Your task to perform on an android device: manage bookmarks in the chrome app Image 0: 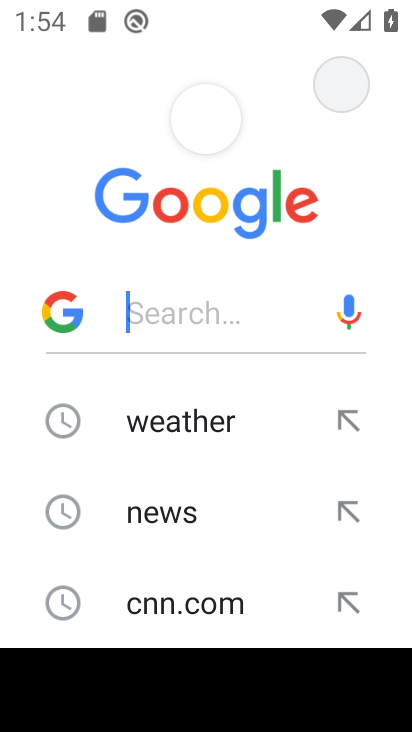
Step 0: press home button
Your task to perform on an android device: manage bookmarks in the chrome app Image 1: 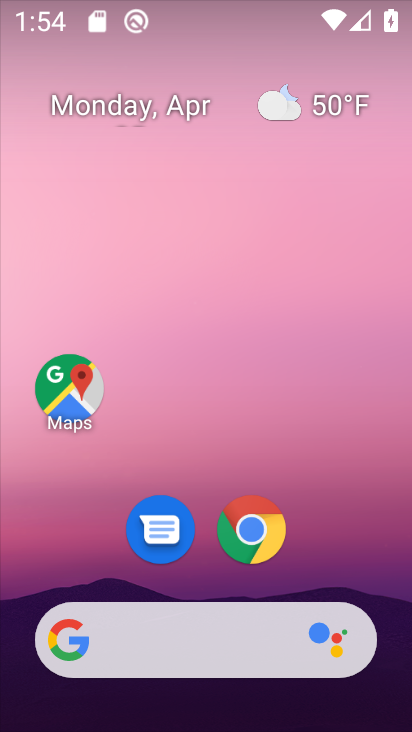
Step 1: click (247, 526)
Your task to perform on an android device: manage bookmarks in the chrome app Image 2: 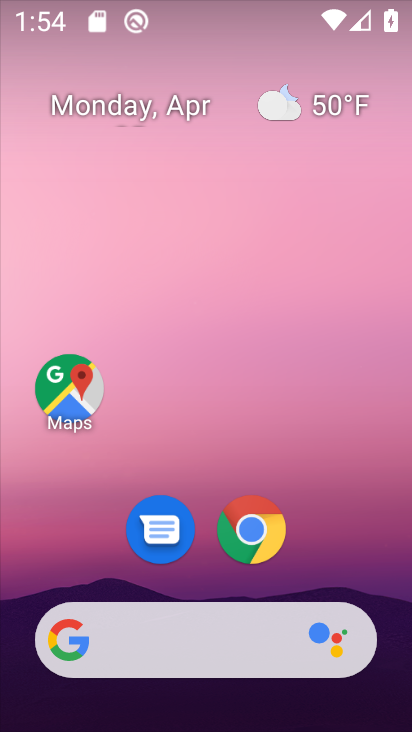
Step 2: click (250, 522)
Your task to perform on an android device: manage bookmarks in the chrome app Image 3: 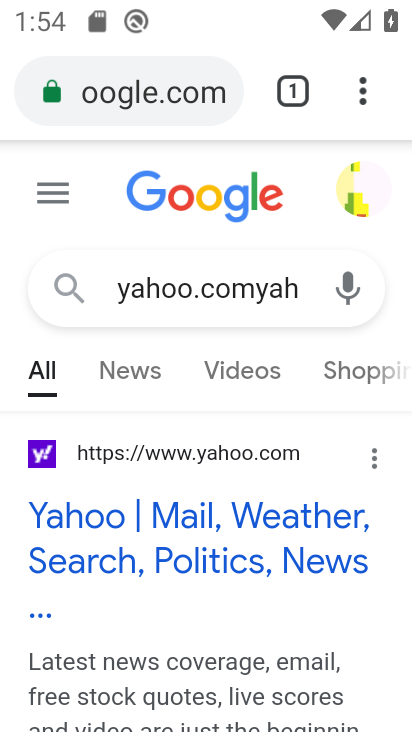
Step 3: click (53, 188)
Your task to perform on an android device: manage bookmarks in the chrome app Image 4: 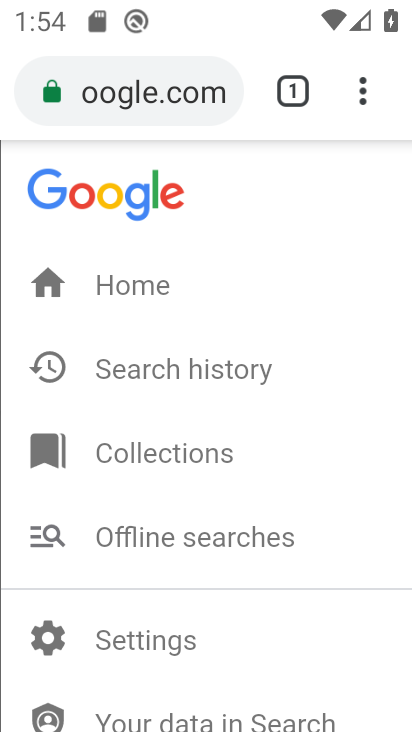
Step 4: click (358, 85)
Your task to perform on an android device: manage bookmarks in the chrome app Image 5: 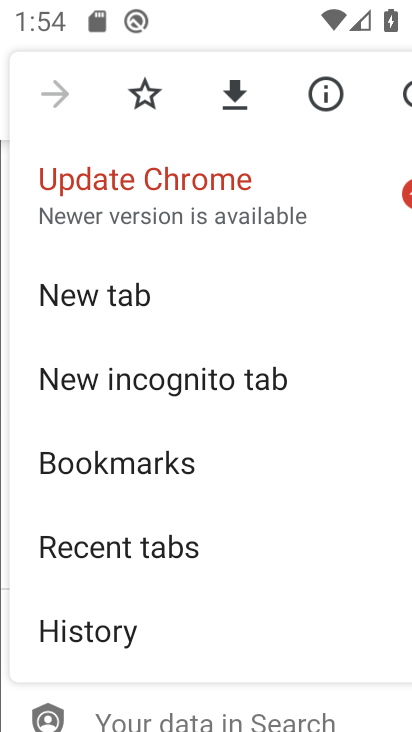
Step 5: drag from (308, 555) to (302, 296)
Your task to perform on an android device: manage bookmarks in the chrome app Image 6: 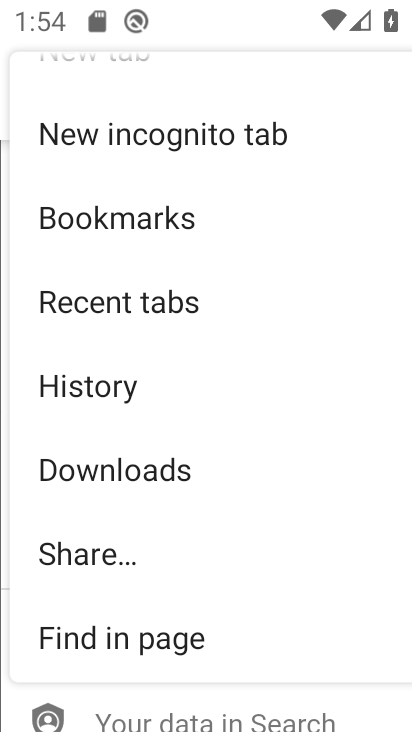
Step 6: drag from (314, 583) to (316, 357)
Your task to perform on an android device: manage bookmarks in the chrome app Image 7: 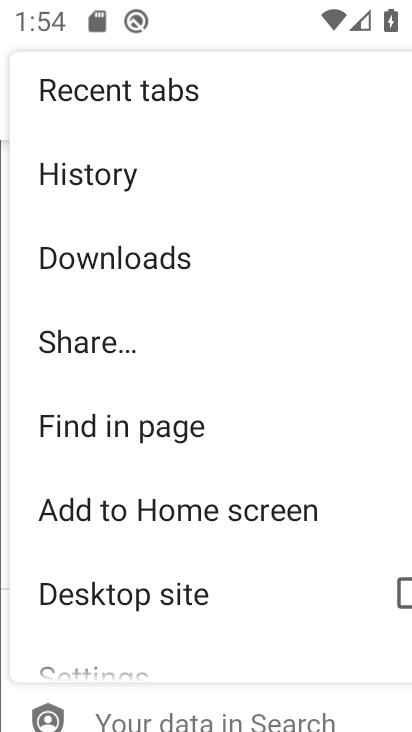
Step 7: drag from (282, 633) to (314, 325)
Your task to perform on an android device: manage bookmarks in the chrome app Image 8: 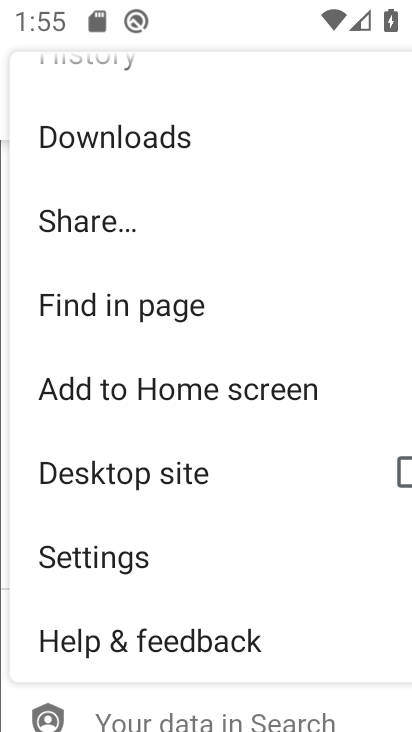
Step 8: drag from (309, 297) to (302, 533)
Your task to perform on an android device: manage bookmarks in the chrome app Image 9: 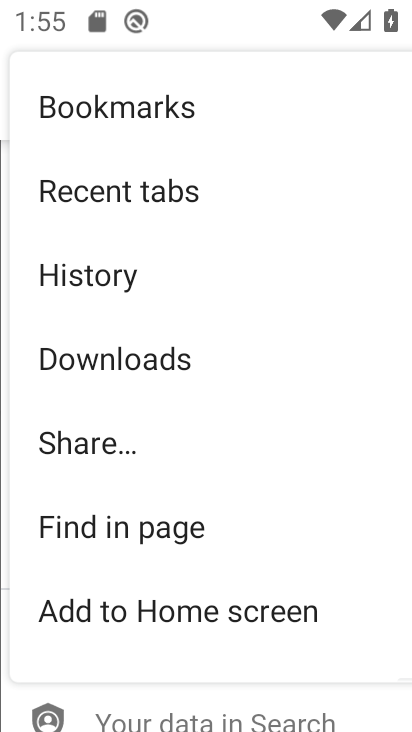
Step 9: click (145, 99)
Your task to perform on an android device: manage bookmarks in the chrome app Image 10: 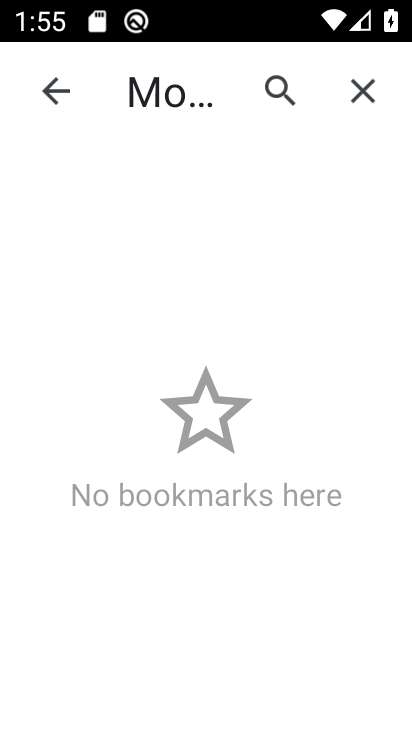
Step 10: task complete